Your task to perform on an android device: Open display settings Image 0: 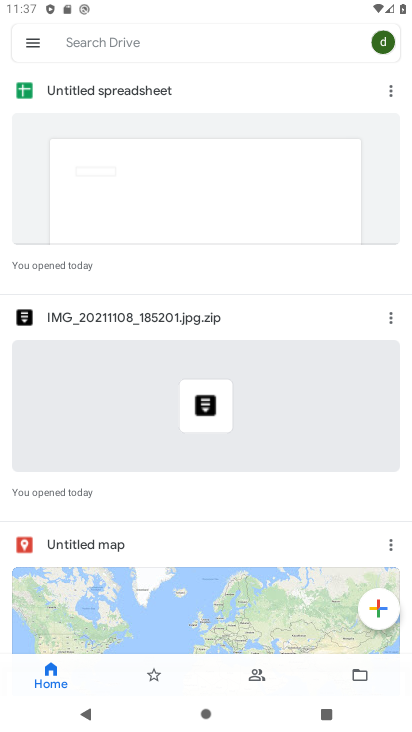
Step 0: press back button
Your task to perform on an android device: Open display settings Image 1: 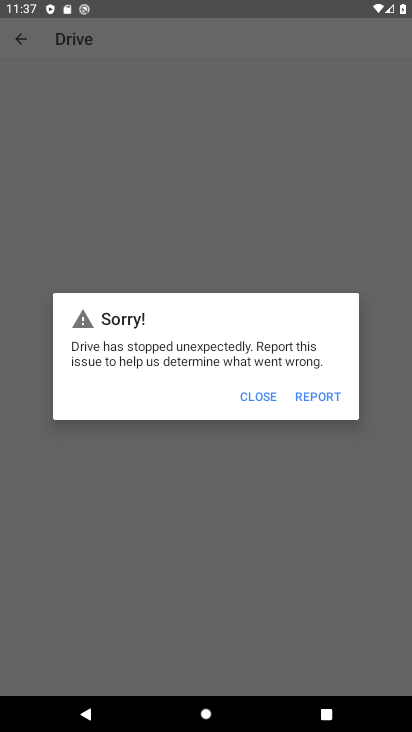
Step 1: press back button
Your task to perform on an android device: Open display settings Image 2: 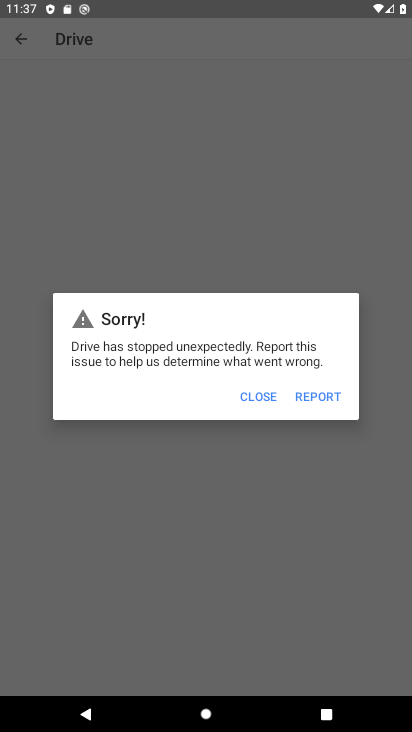
Step 2: press home button
Your task to perform on an android device: Open display settings Image 3: 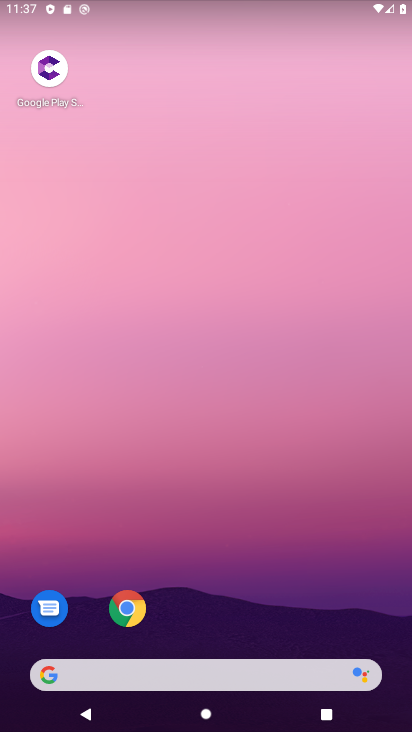
Step 3: drag from (239, 582) to (219, 2)
Your task to perform on an android device: Open display settings Image 4: 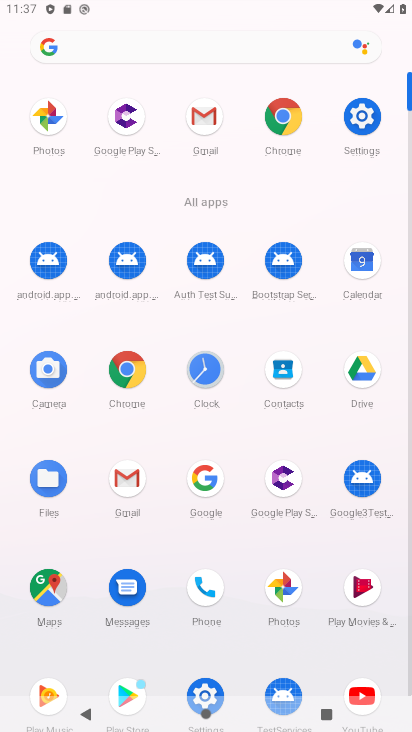
Step 4: click (362, 115)
Your task to perform on an android device: Open display settings Image 5: 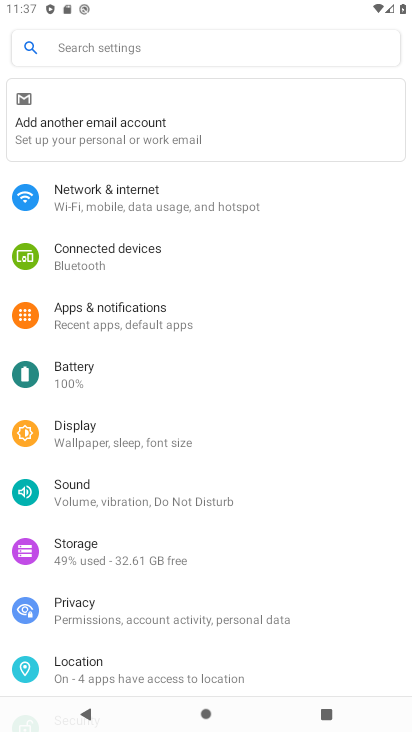
Step 5: click (91, 438)
Your task to perform on an android device: Open display settings Image 6: 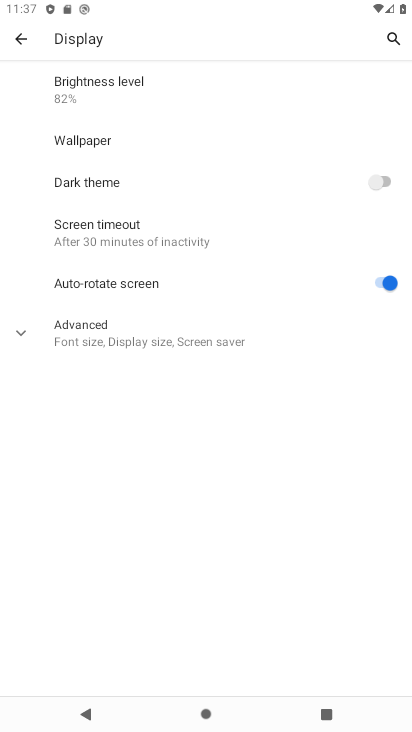
Step 6: click (28, 325)
Your task to perform on an android device: Open display settings Image 7: 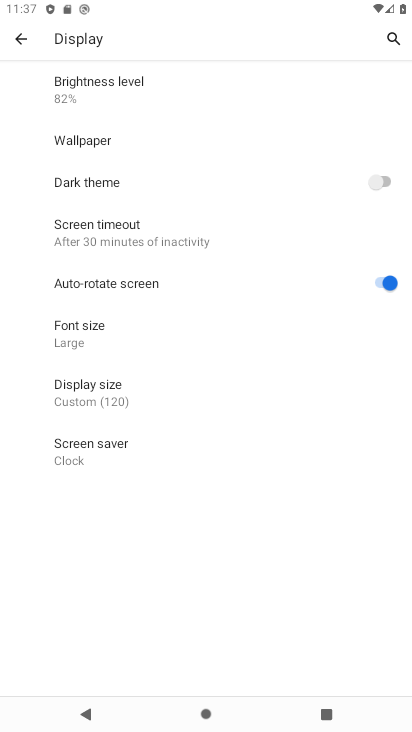
Step 7: task complete